Your task to perform on an android device: Go to network settings Image 0: 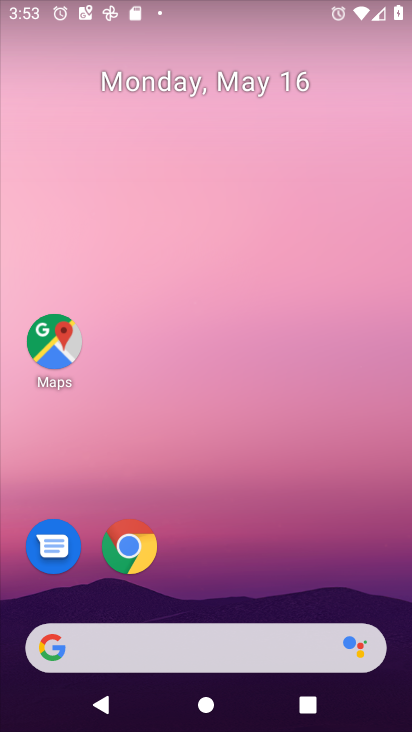
Step 0: drag from (352, 569) to (344, 76)
Your task to perform on an android device: Go to network settings Image 1: 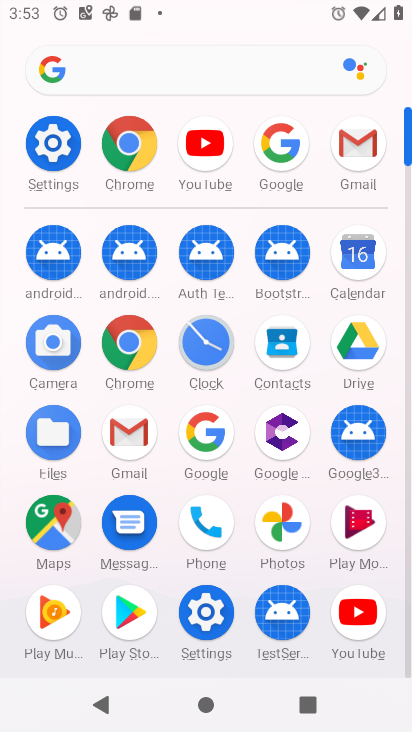
Step 1: click (49, 138)
Your task to perform on an android device: Go to network settings Image 2: 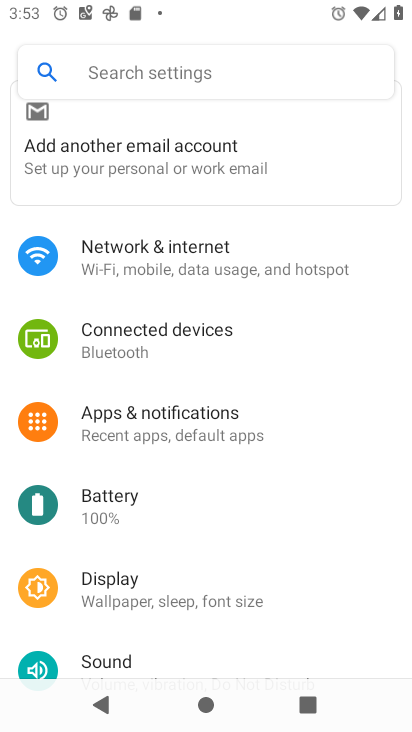
Step 2: drag from (361, 600) to (364, 461)
Your task to perform on an android device: Go to network settings Image 3: 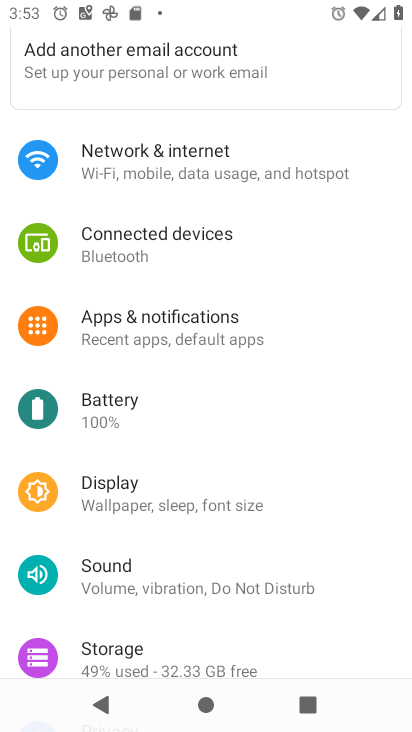
Step 3: drag from (346, 650) to (359, 484)
Your task to perform on an android device: Go to network settings Image 4: 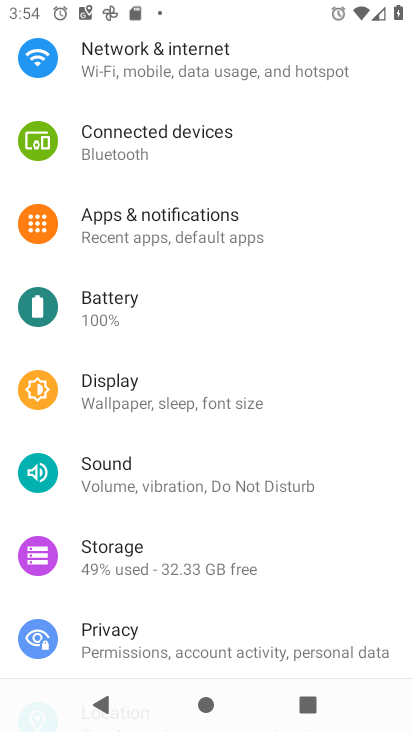
Step 4: drag from (347, 639) to (342, 472)
Your task to perform on an android device: Go to network settings Image 5: 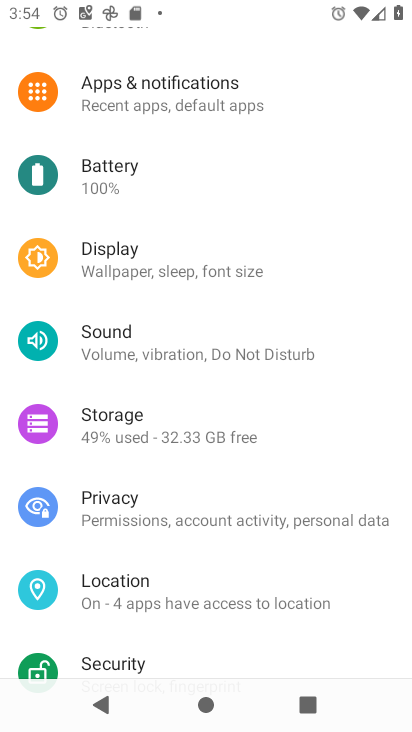
Step 5: drag from (366, 649) to (364, 457)
Your task to perform on an android device: Go to network settings Image 6: 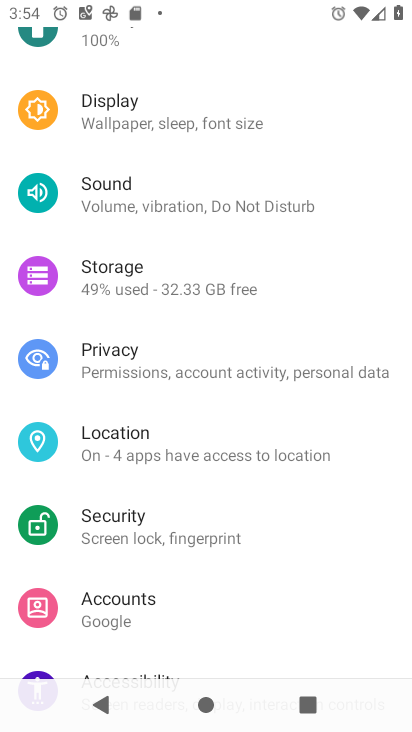
Step 6: drag from (342, 604) to (333, 441)
Your task to perform on an android device: Go to network settings Image 7: 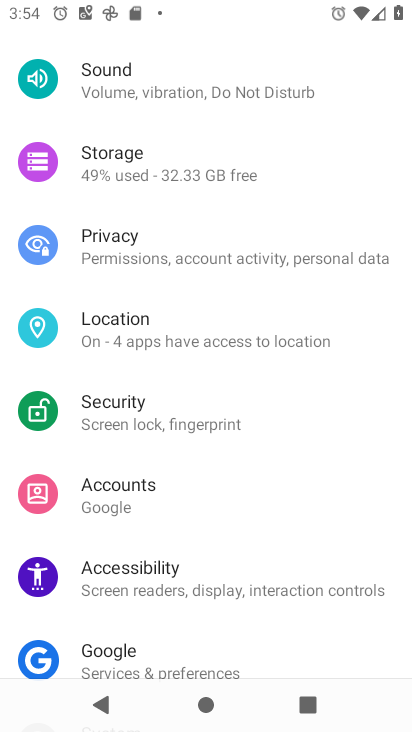
Step 7: drag from (316, 640) to (334, 405)
Your task to perform on an android device: Go to network settings Image 8: 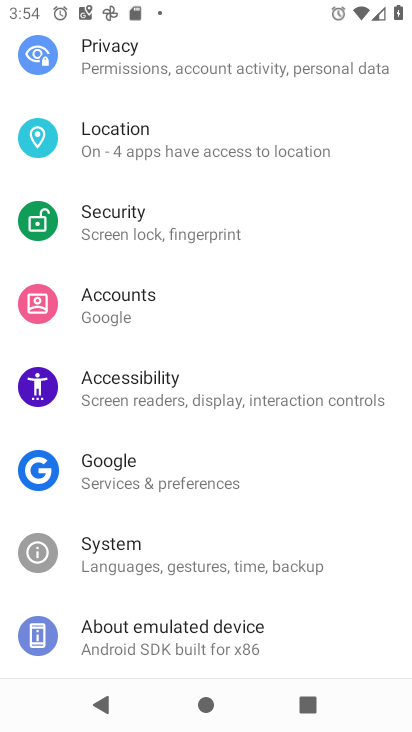
Step 8: drag from (364, 250) to (337, 448)
Your task to perform on an android device: Go to network settings Image 9: 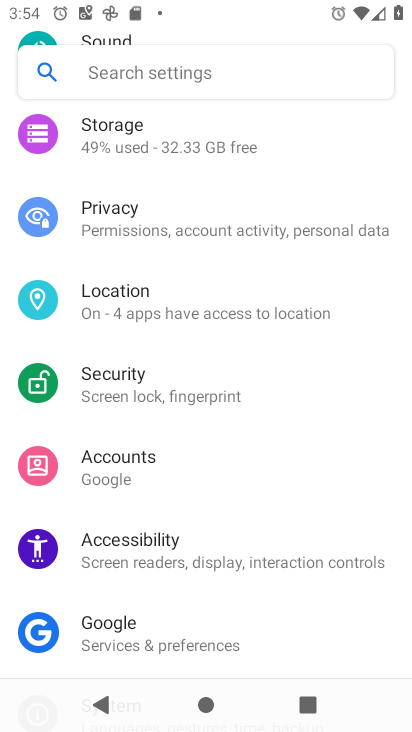
Step 9: drag from (362, 186) to (307, 454)
Your task to perform on an android device: Go to network settings Image 10: 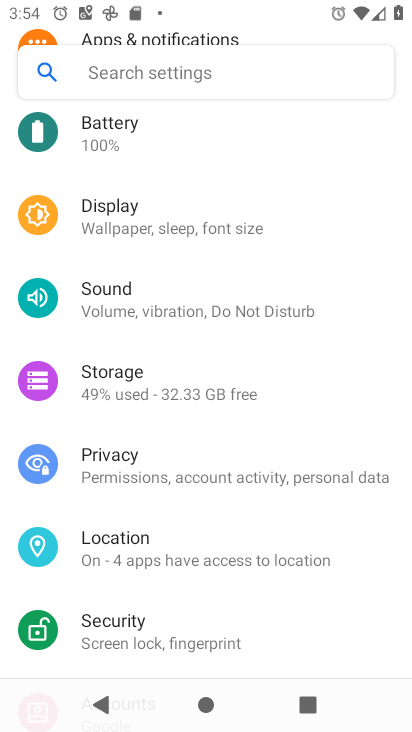
Step 10: drag from (296, 190) to (267, 435)
Your task to perform on an android device: Go to network settings Image 11: 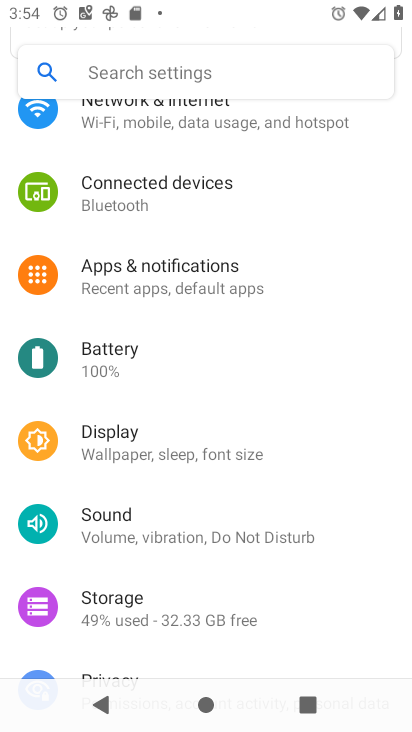
Step 11: drag from (357, 239) to (347, 422)
Your task to perform on an android device: Go to network settings Image 12: 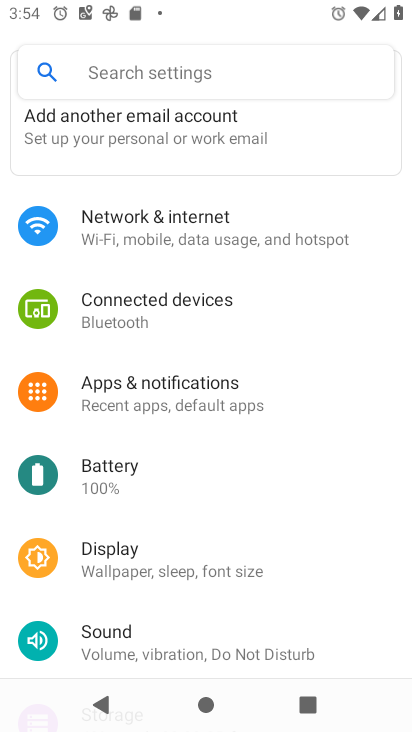
Step 12: drag from (357, 337) to (334, 459)
Your task to perform on an android device: Go to network settings Image 13: 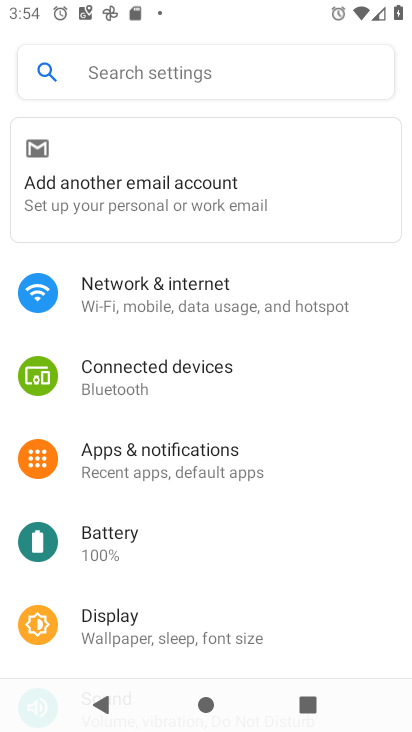
Step 13: click (305, 304)
Your task to perform on an android device: Go to network settings Image 14: 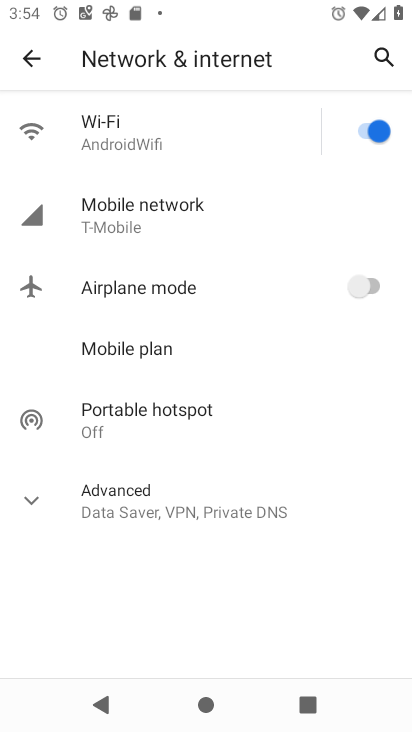
Step 14: task complete